Your task to perform on an android device: Open calendar and show me the fourth week of next month Image 0: 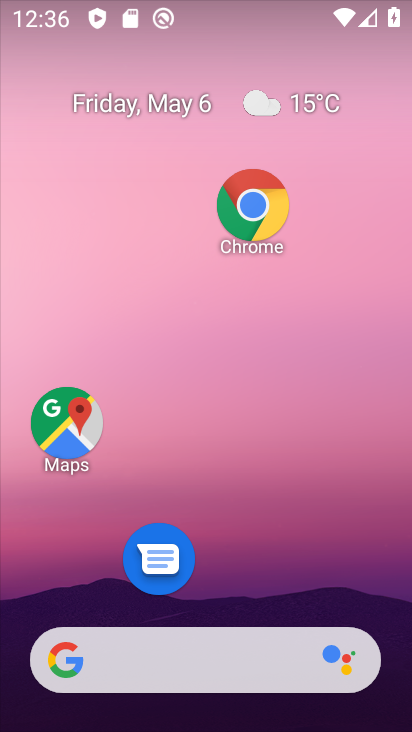
Step 0: drag from (206, 619) to (162, 126)
Your task to perform on an android device: Open calendar and show me the fourth week of next month Image 1: 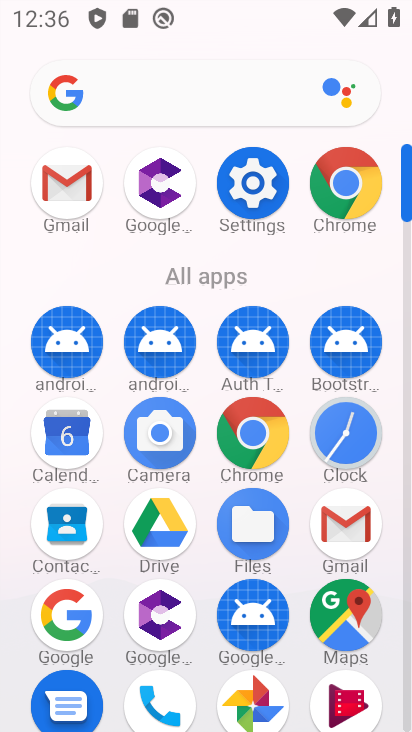
Step 1: click (55, 458)
Your task to perform on an android device: Open calendar and show me the fourth week of next month Image 2: 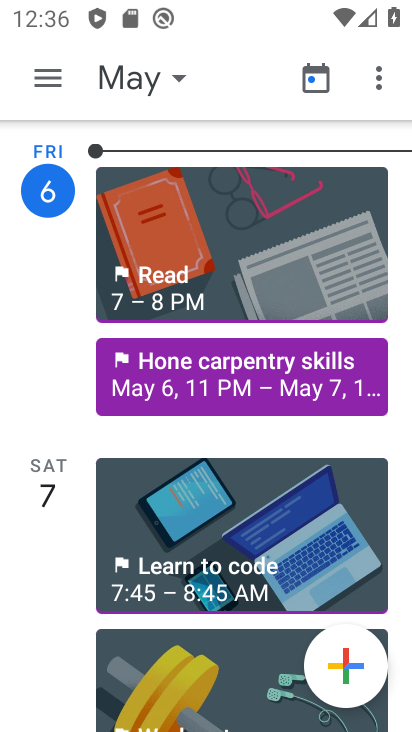
Step 2: click (45, 62)
Your task to perform on an android device: Open calendar and show me the fourth week of next month Image 3: 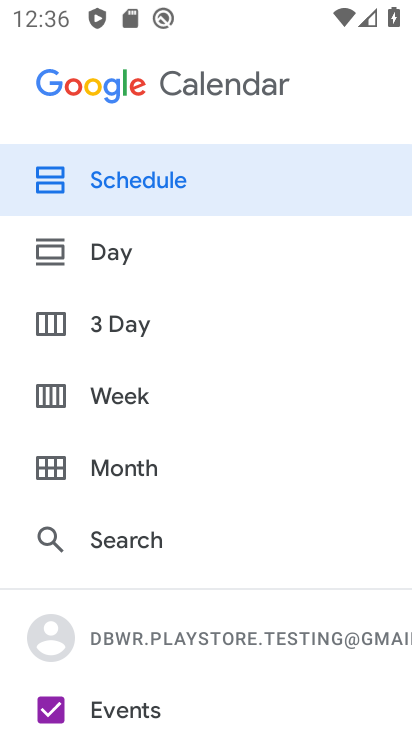
Step 3: click (114, 390)
Your task to perform on an android device: Open calendar and show me the fourth week of next month Image 4: 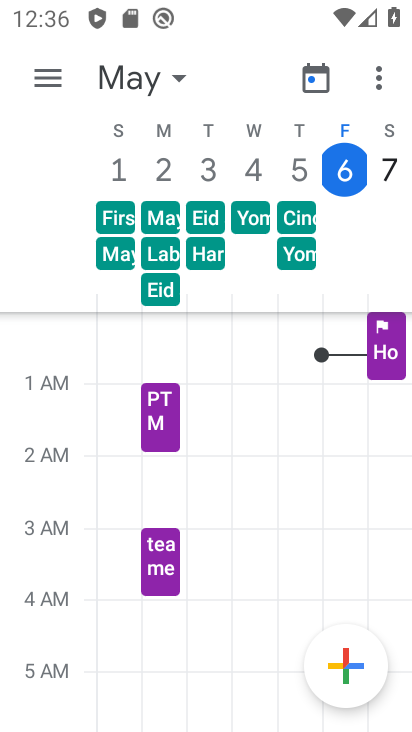
Step 4: task complete